Your task to perform on an android device: delete a single message in the gmail app Image 0: 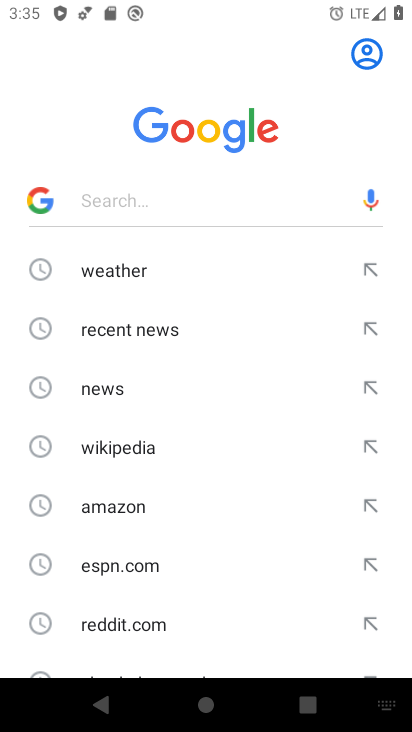
Step 0: press home button
Your task to perform on an android device: delete a single message in the gmail app Image 1: 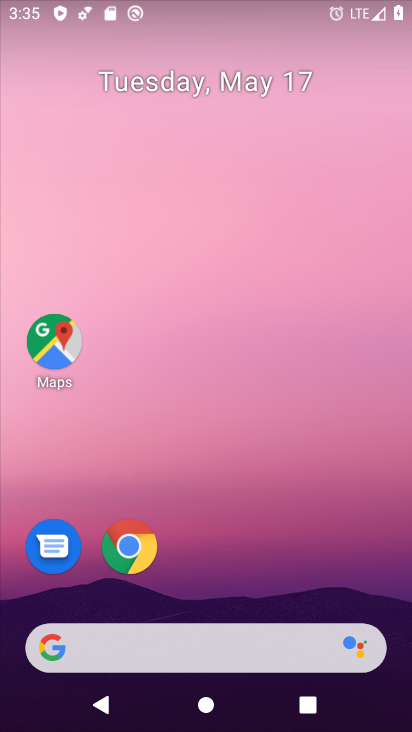
Step 1: drag from (180, 587) to (212, 33)
Your task to perform on an android device: delete a single message in the gmail app Image 2: 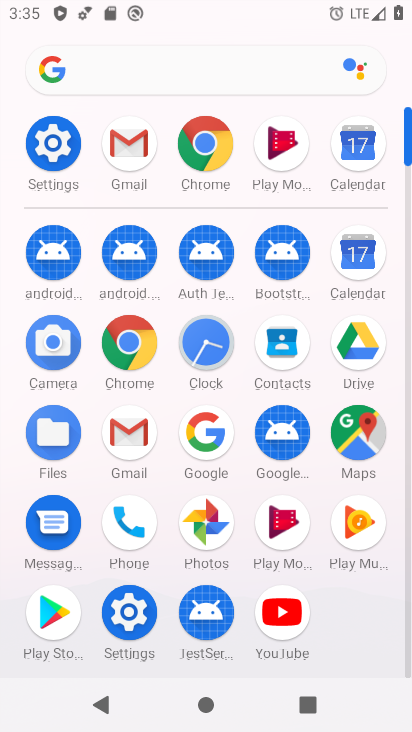
Step 2: click (125, 164)
Your task to perform on an android device: delete a single message in the gmail app Image 3: 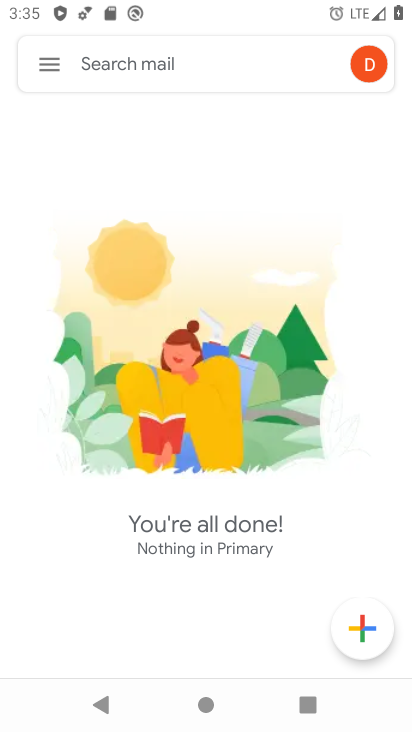
Step 3: task complete